Your task to perform on an android device: toggle notification dots Image 0: 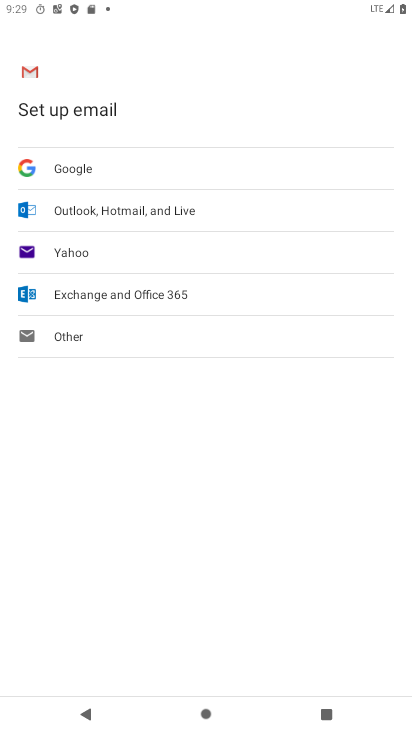
Step 0: press home button
Your task to perform on an android device: toggle notification dots Image 1: 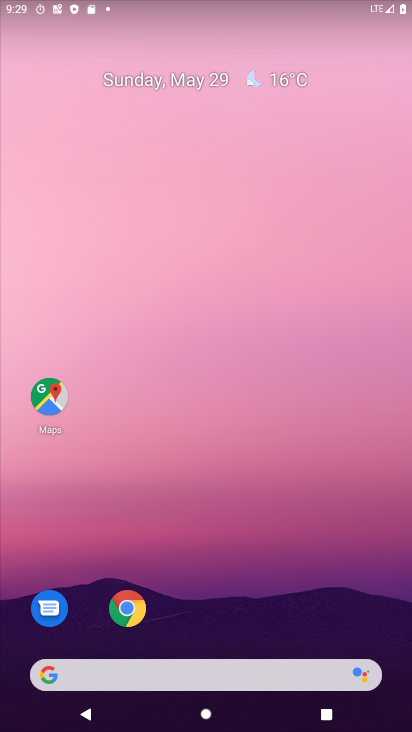
Step 1: drag from (192, 638) to (313, 148)
Your task to perform on an android device: toggle notification dots Image 2: 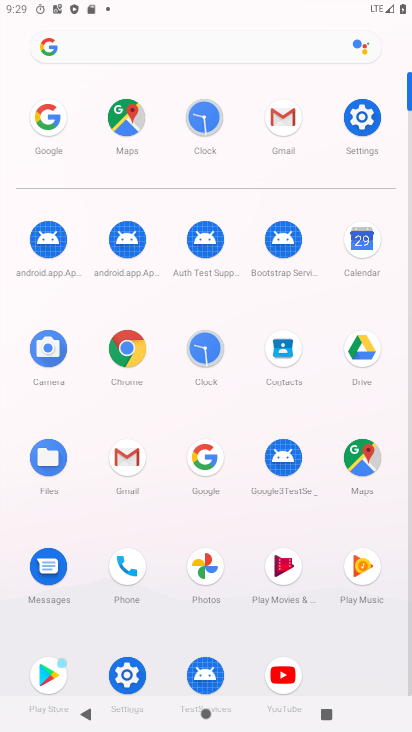
Step 2: click (353, 142)
Your task to perform on an android device: toggle notification dots Image 3: 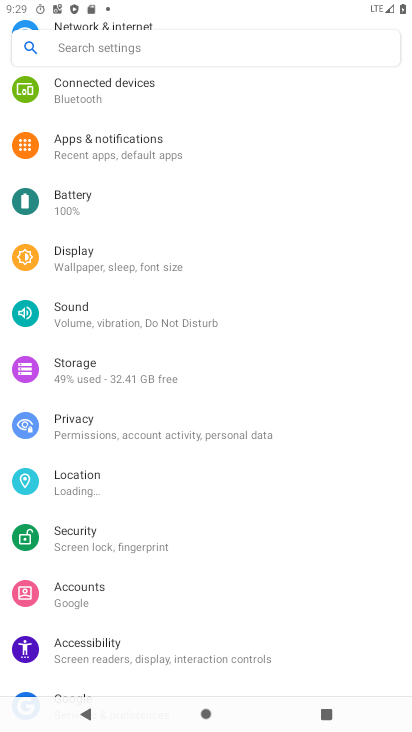
Step 3: click (94, 154)
Your task to perform on an android device: toggle notification dots Image 4: 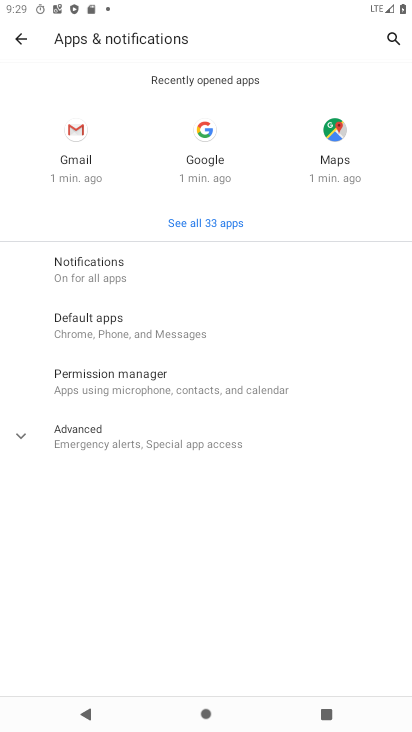
Step 4: click (85, 282)
Your task to perform on an android device: toggle notification dots Image 5: 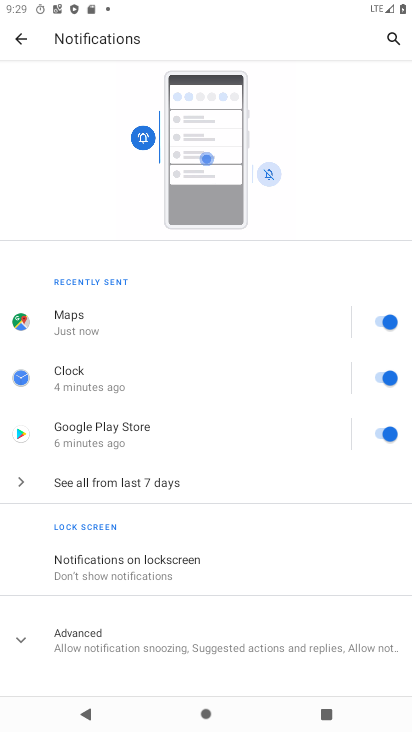
Step 5: click (133, 662)
Your task to perform on an android device: toggle notification dots Image 6: 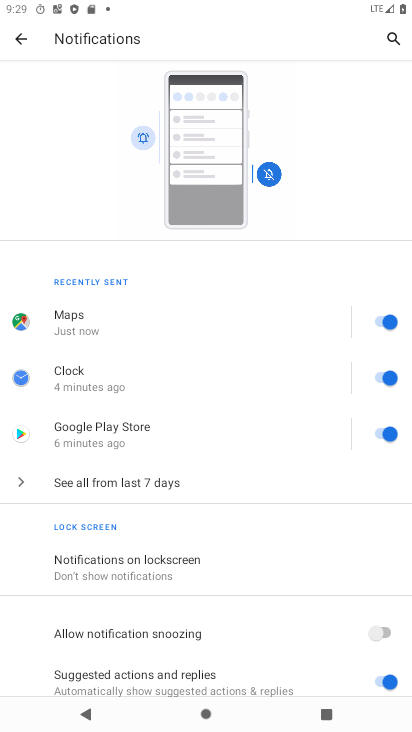
Step 6: drag from (326, 669) to (333, 394)
Your task to perform on an android device: toggle notification dots Image 7: 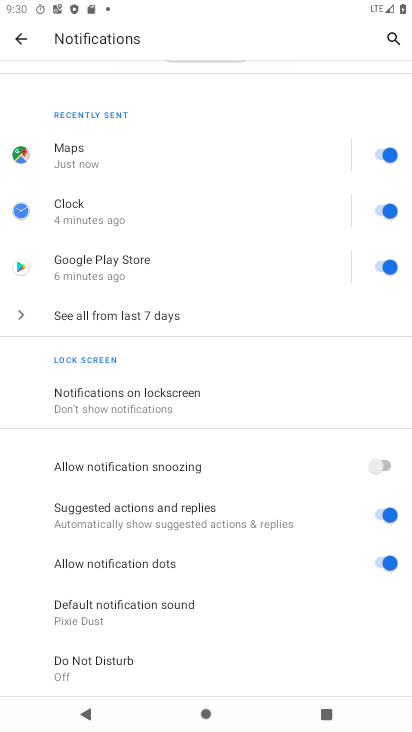
Step 7: click (386, 572)
Your task to perform on an android device: toggle notification dots Image 8: 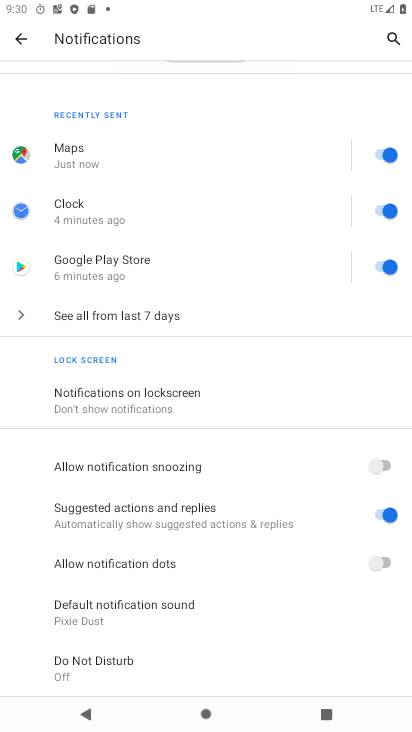
Step 8: task complete